Your task to perform on an android device: open a bookmark in the chrome app Image 0: 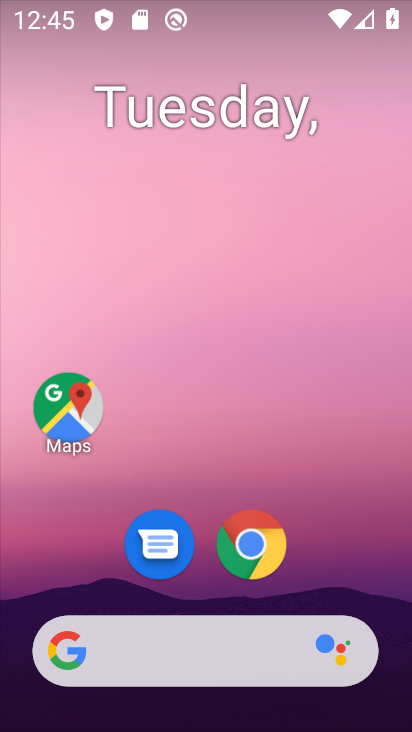
Step 0: click (252, 544)
Your task to perform on an android device: open a bookmark in the chrome app Image 1: 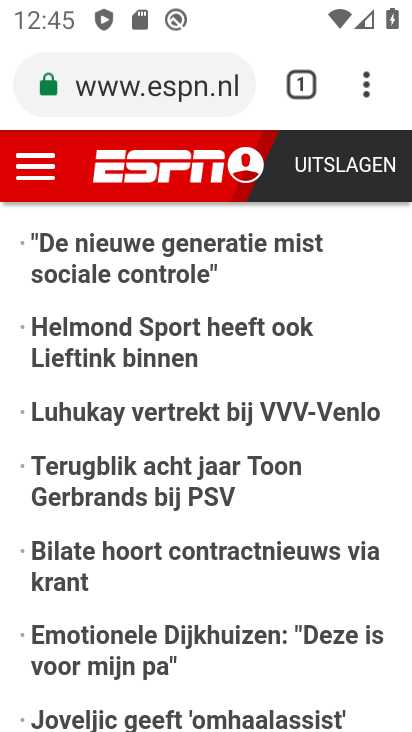
Step 1: click (363, 87)
Your task to perform on an android device: open a bookmark in the chrome app Image 2: 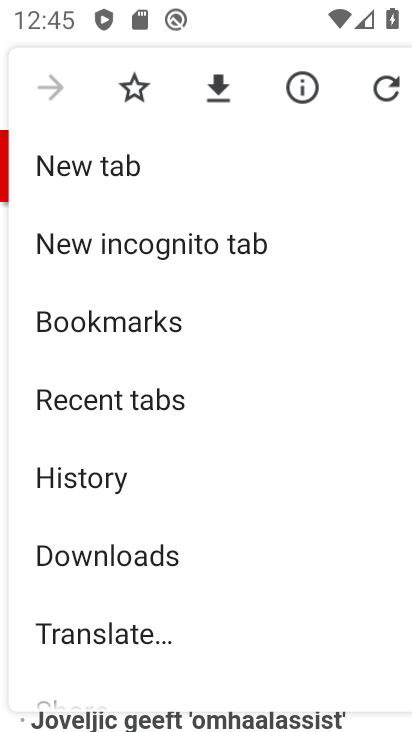
Step 2: click (123, 333)
Your task to perform on an android device: open a bookmark in the chrome app Image 3: 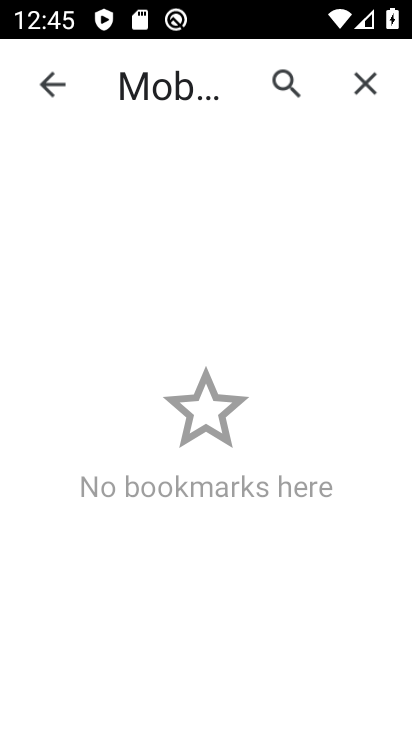
Step 3: task complete